Your task to perform on an android device: Check the news Image 0: 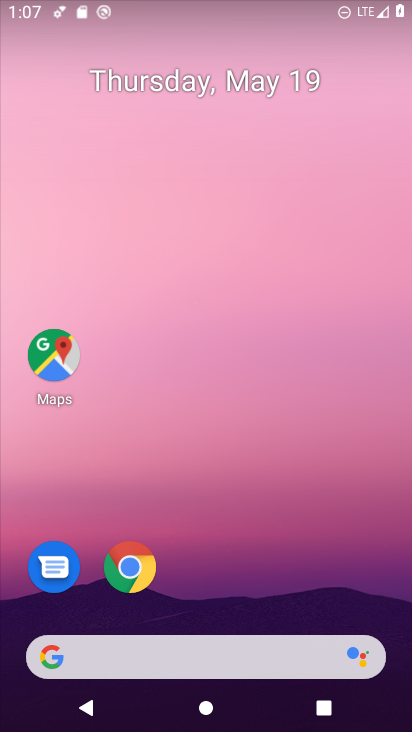
Step 0: click (285, 663)
Your task to perform on an android device: Check the news Image 1: 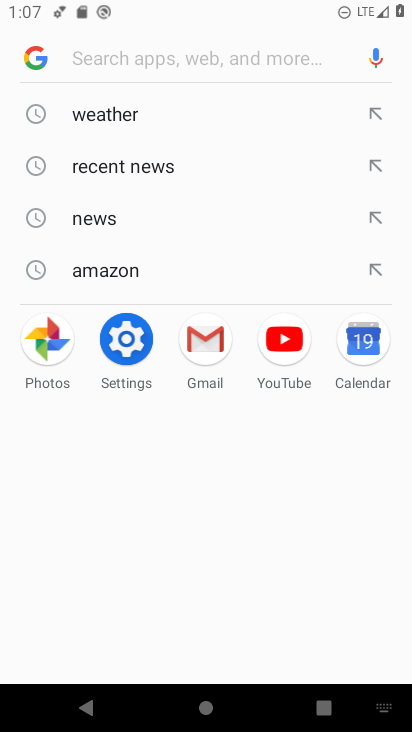
Step 1: click (86, 220)
Your task to perform on an android device: Check the news Image 2: 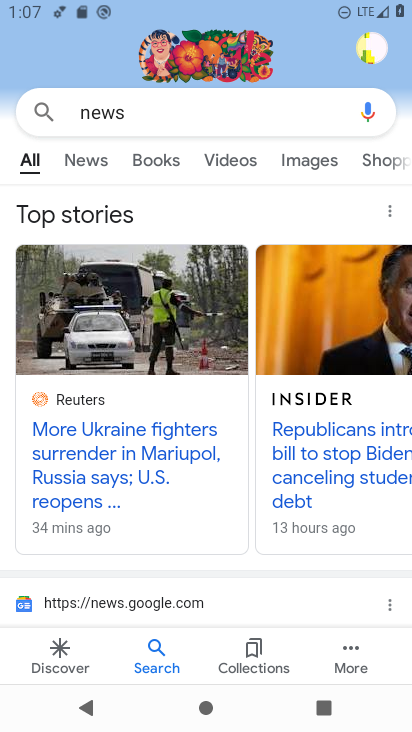
Step 2: click (93, 155)
Your task to perform on an android device: Check the news Image 3: 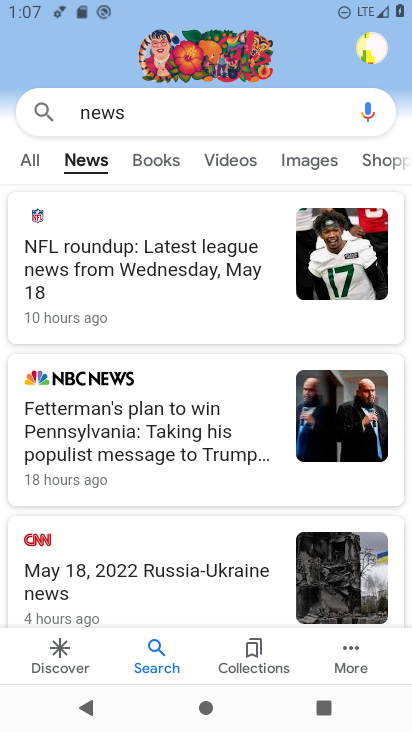
Step 3: task complete